Your task to perform on an android device: Search for the best selling jewelry on Etsy. Image 0: 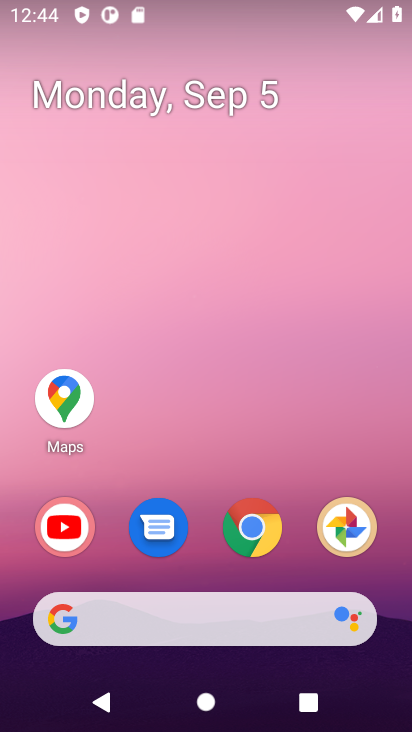
Step 0: click (240, 519)
Your task to perform on an android device: Search for the best selling jewelry on Etsy. Image 1: 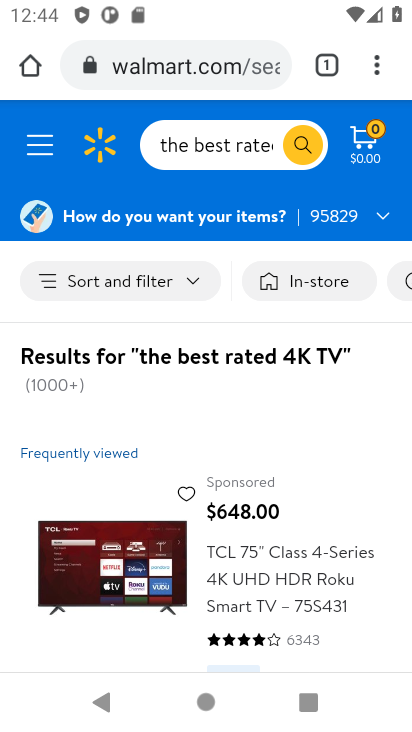
Step 1: click (200, 70)
Your task to perform on an android device: Search for the best selling jewelry on Etsy. Image 2: 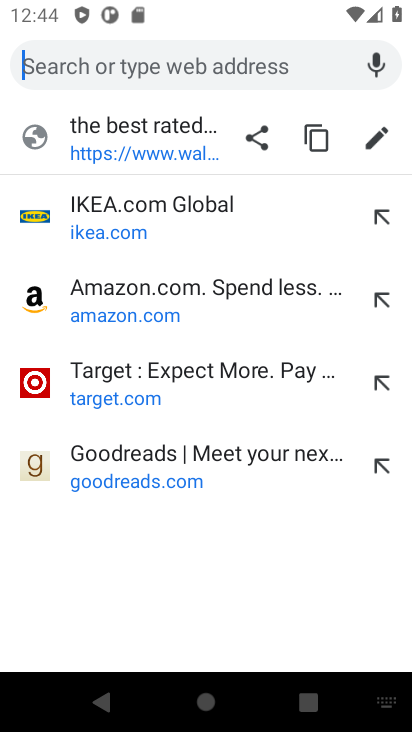
Step 2: type "Etsy"
Your task to perform on an android device: Search for the best selling jewelry on Etsy. Image 3: 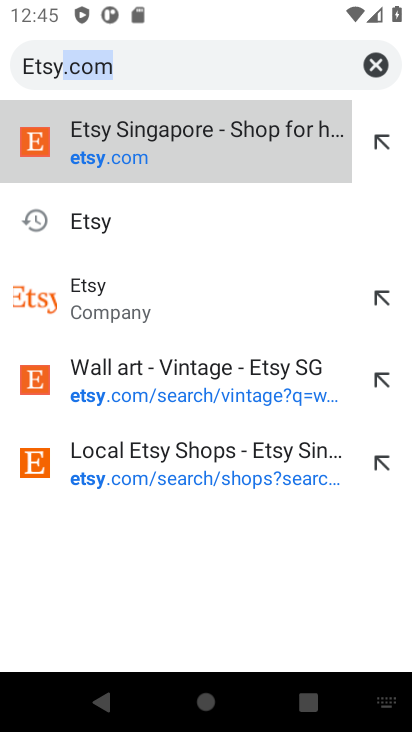
Step 3: click (193, 164)
Your task to perform on an android device: Search for the best selling jewelry on Etsy. Image 4: 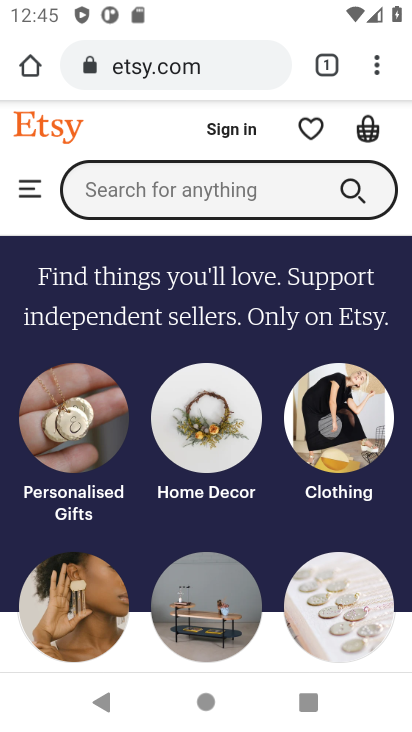
Step 4: click (192, 196)
Your task to perform on an android device: Search for the best selling jewelry on Etsy. Image 5: 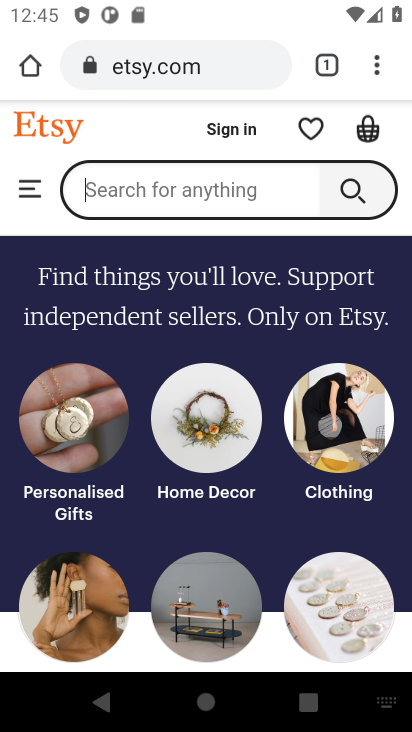
Step 5: type "the best selling jewelry"
Your task to perform on an android device: Search for the best selling jewelry on Etsy. Image 6: 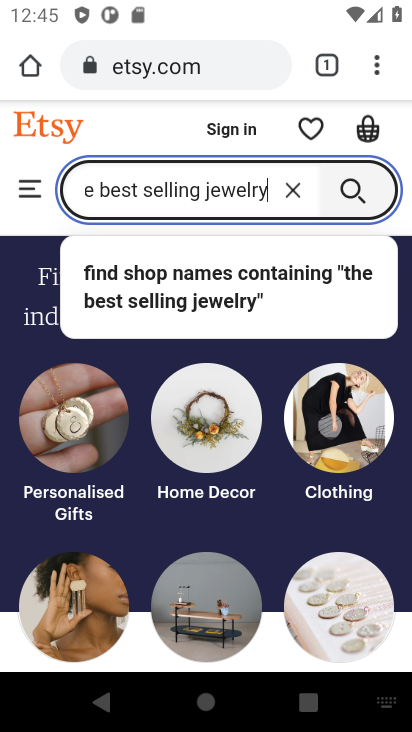
Step 6: click (355, 200)
Your task to perform on an android device: Search for the best selling jewelry on Etsy. Image 7: 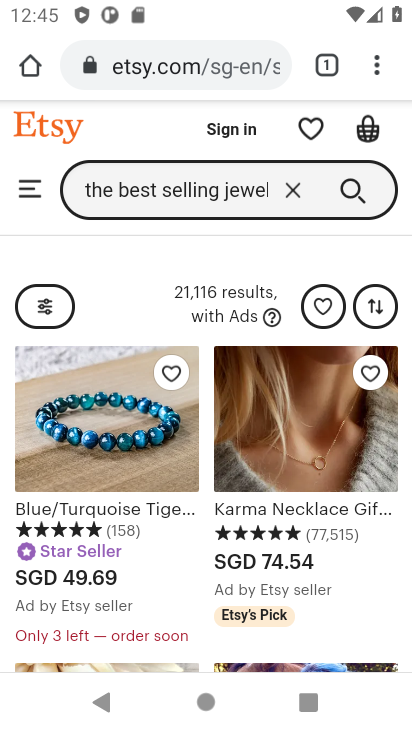
Step 7: task complete